Your task to perform on an android device: turn smart compose on in the gmail app Image 0: 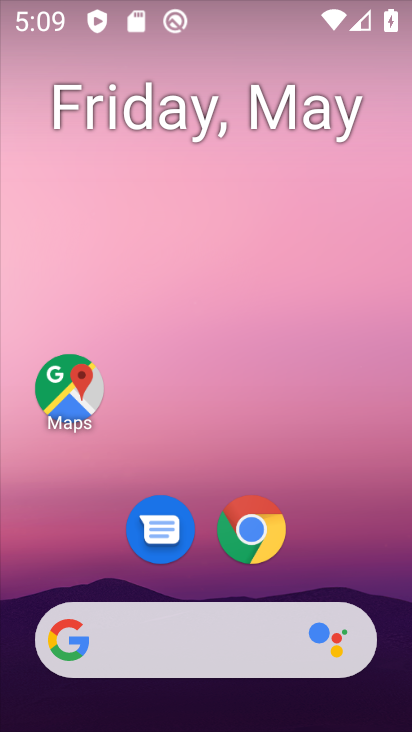
Step 0: drag from (226, 397) to (375, 2)
Your task to perform on an android device: turn smart compose on in the gmail app Image 1: 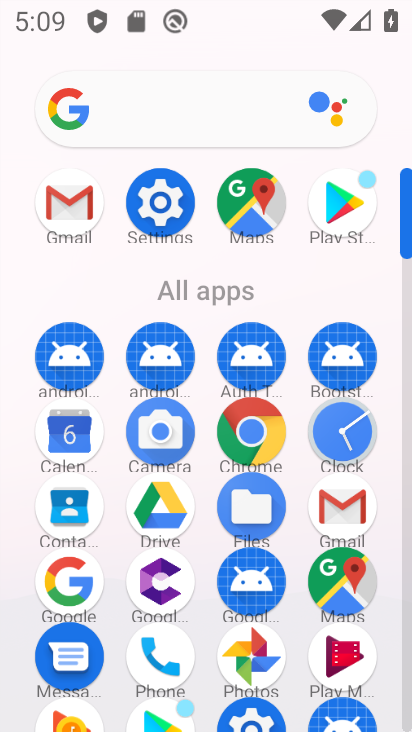
Step 1: click (173, 216)
Your task to perform on an android device: turn smart compose on in the gmail app Image 2: 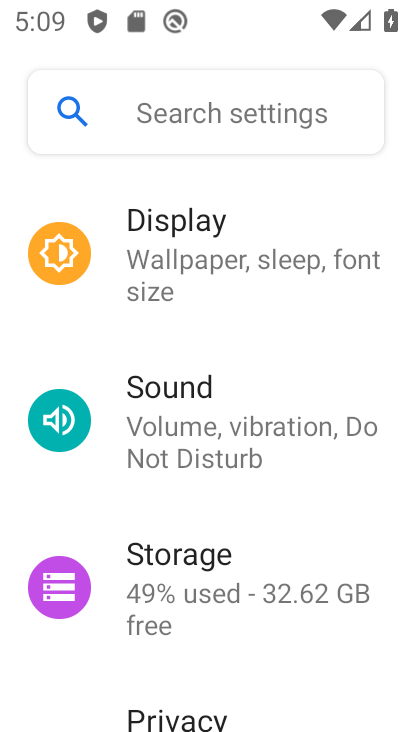
Step 2: press home button
Your task to perform on an android device: turn smart compose on in the gmail app Image 3: 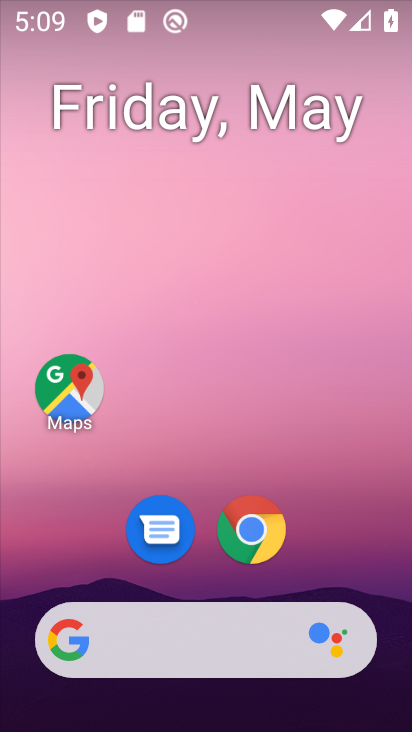
Step 3: drag from (202, 582) to (231, 131)
Your task to perform on an android device: turn smart compose on in the gmail app Image 4: 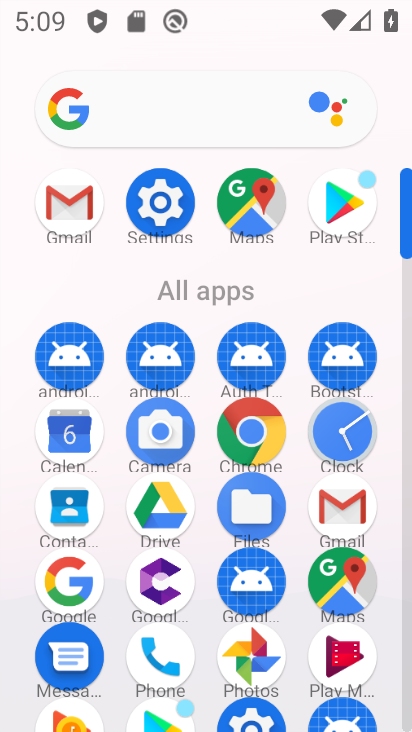
Step 4: click (75, 205)
Your task to perform on an android device: turn smart compose on in the gmail app Image 5: 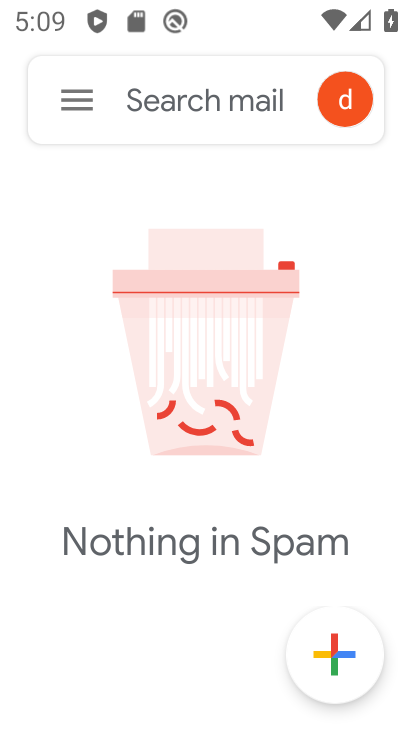
Step 5: click (88, 119)
Your task to perform on an android device: turn smart compose on in the gmail app Image 6: 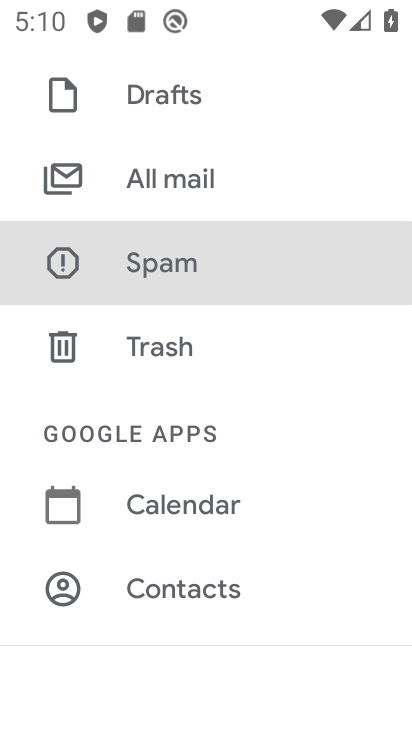
Step 6: drag from (118, 525) to (195, 220)
Your task to perform on an android device: turn smart compose on in the gmail app Image 7: 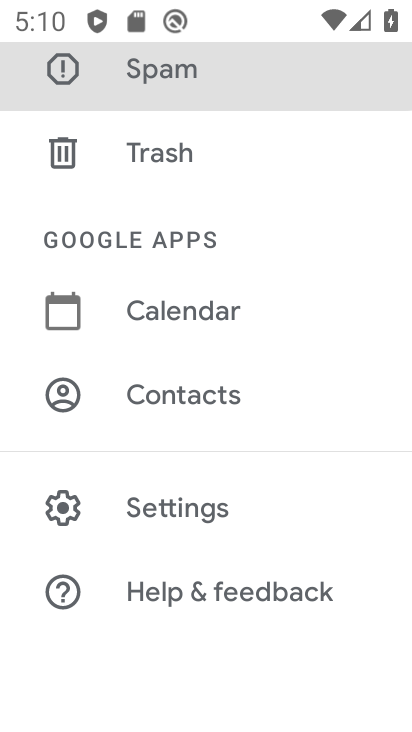
Step 7: click (174, 517)
Your task to perform on an android device: turn smart compose on in the gmail app Image 8: 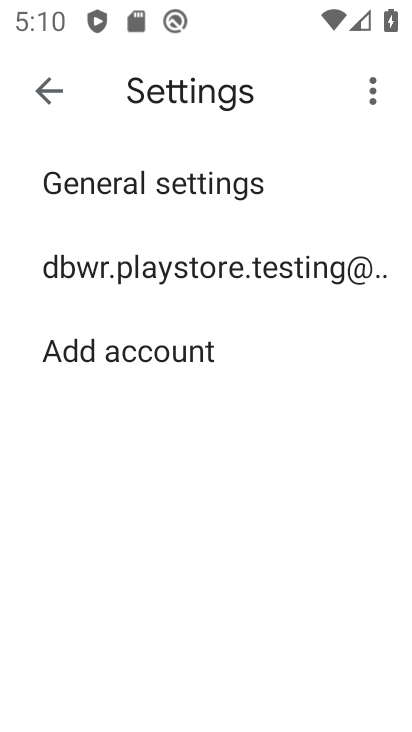
Step 8: click (170, 292)
Your task to perform on an android device: turn smart compose on in the gmail app Image 9: 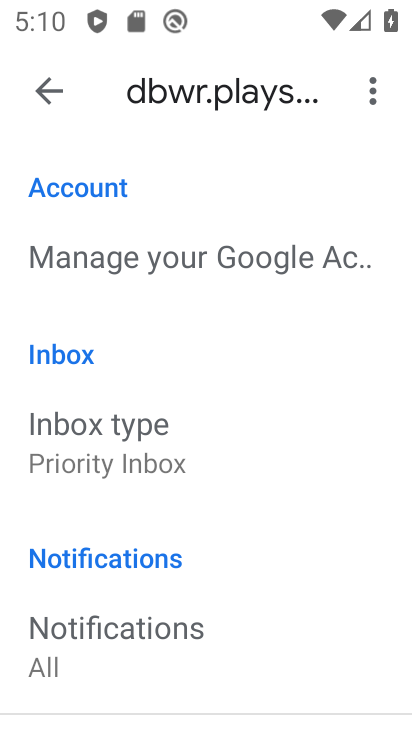
Step 9: task complete